Your task to perform on an android device: Is it going to rain today? Image 0: 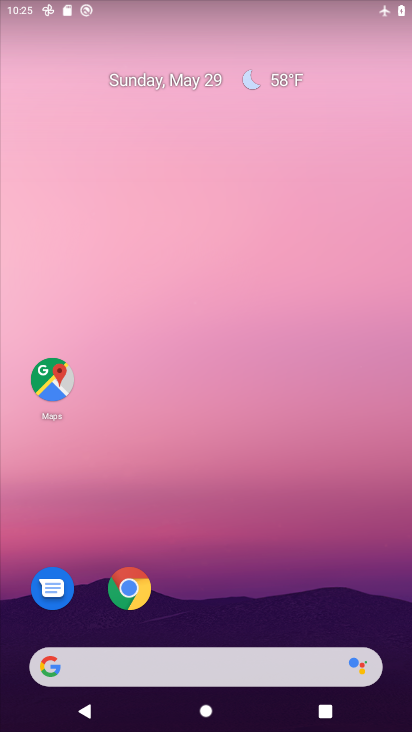
Step 0: drag from (49, 293) to (380, 565)
Your task to perform on an android device: Is it going to rain today? Image 1: 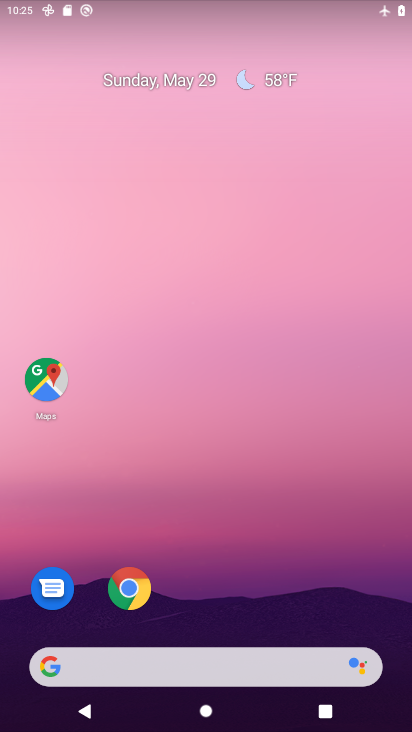
Step 1: drag from (43, 217) to (397, 548)
Your task to perform on an android device: Is it going to rain today? Image 2: 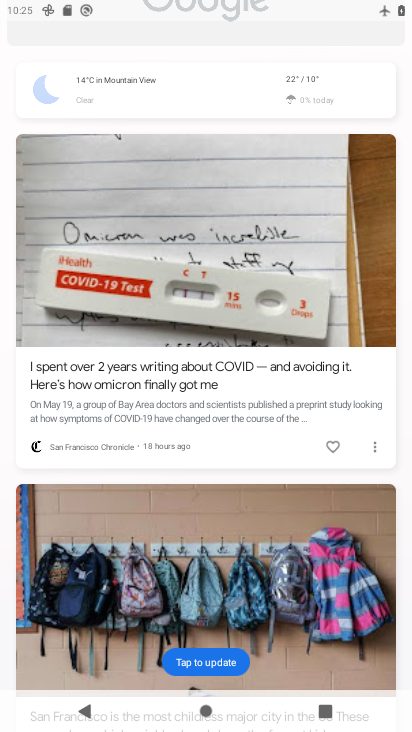
Step 2: drag from (23, 209) to (376, 522)
Your task to perform on an android device: Is it going to rain today? Image 3: 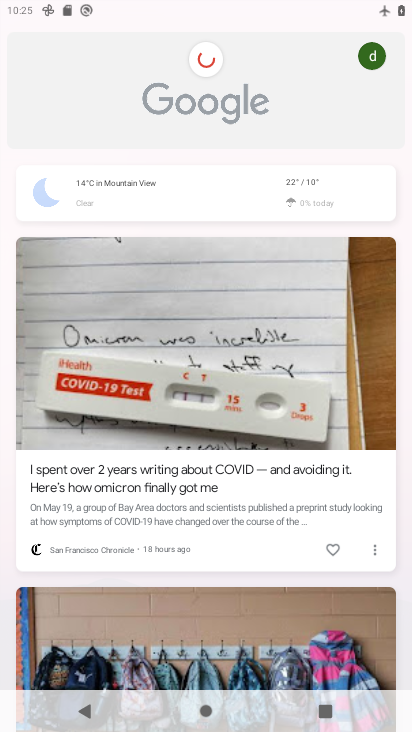
Step 3: click (185, 188)
Your task to perform on an android device: Is it going to rain today? Image 4: 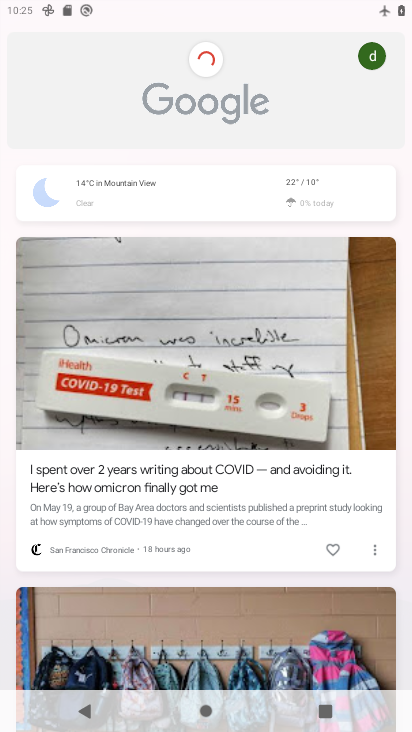
Step 4: click (186, 189)
Your task to perform on an android device: Is it going to rain today? Image 5: 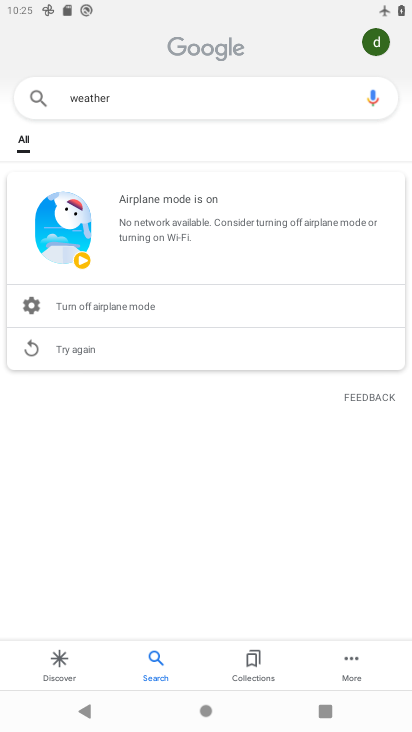
Step 5: task complete